Your task to perform on an android device: Search for Mexican restaurants on Maps Image 0: 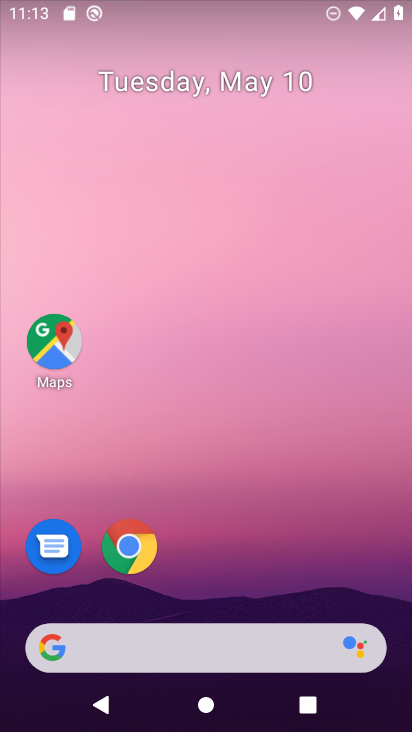
Step 0: click (49, 338)
Your task to perform on an android device: Search for Mexican restaurants on Maps Image 1: 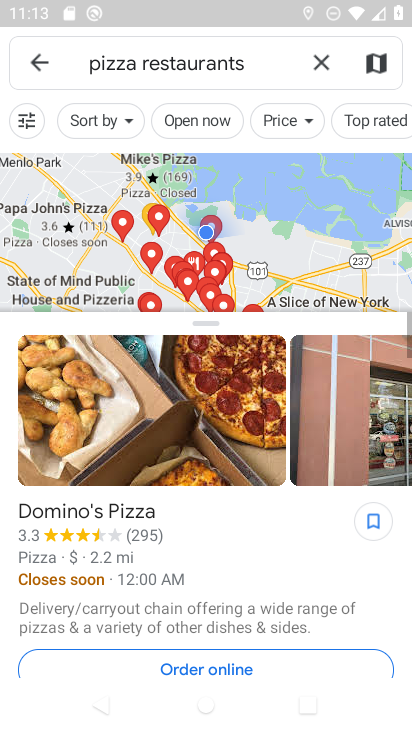
Step 1: click (266, 58)
Your task to perform on an android device: Search for Mexican restaurants on Maps Image 2: 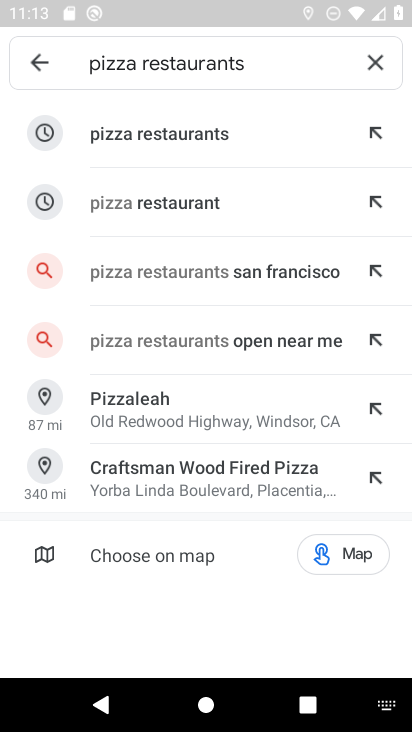
Step 2: click (379, 67)
Your task to perform on an android device: Search for Mexican restaurants on Maps Image 3: 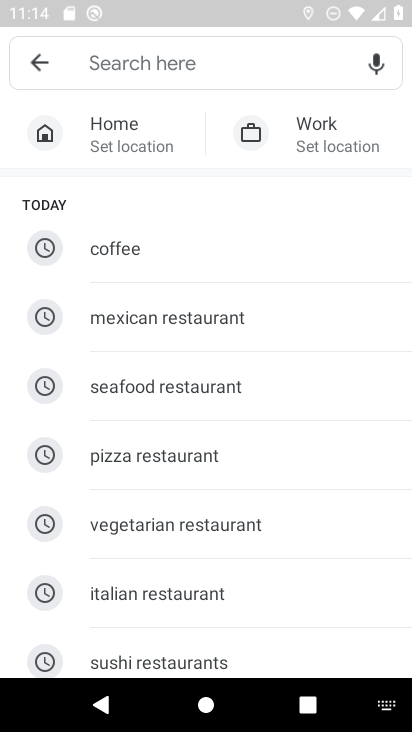
Step 3: type "Mexican restaurants"
Your task to perform on an android device: Search for Mexican restaurants on Maps Image 4: 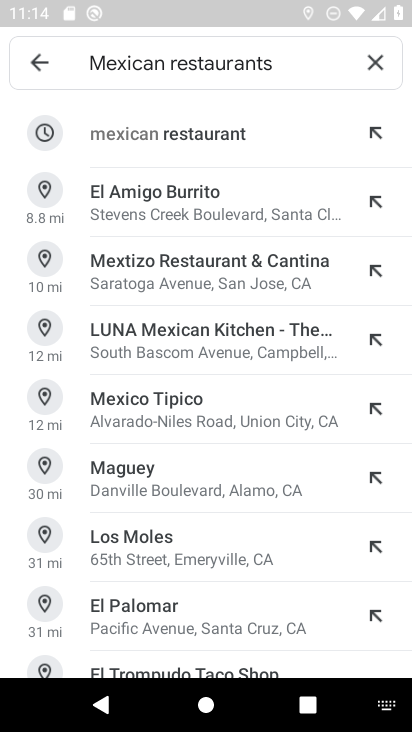
Step 4: press enter
Your task to perform on an android device: Search for Mexican restaurants on Maps Image 5: 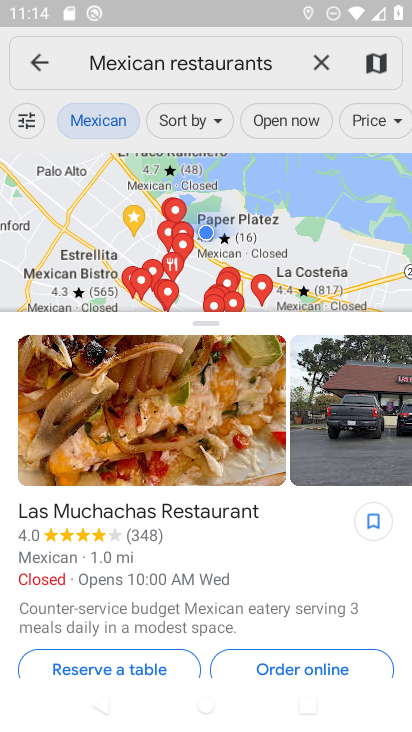
Step 5: task complete